Your task to perform on an android device: open device folders in google photos Image 0: 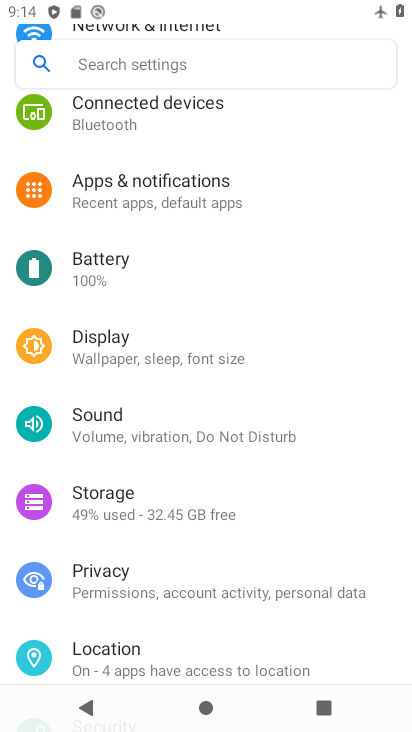
Step 0: press home button
Your task to perform on an android device: open device folders in google photos Image 1: 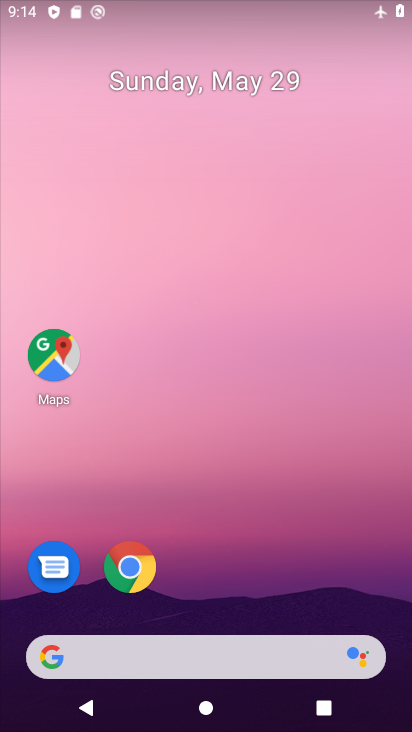
Step 1: drag from (396, 611) to (250, 73)
Your task to perform on an android device: open device folders in google photos Image 2: 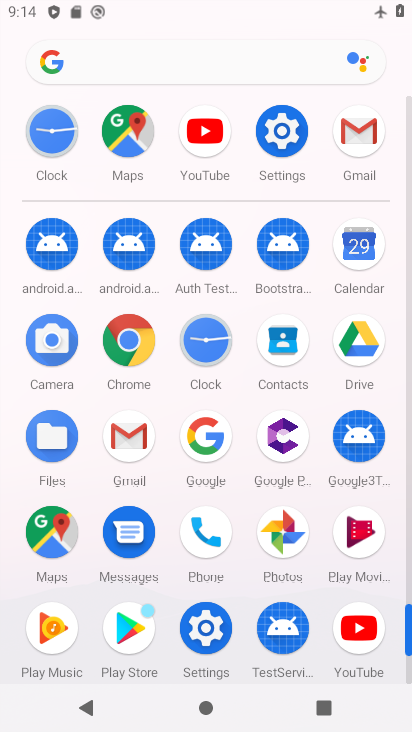
Step 2: click (281, 533)
Your task to perform on an android device: open device folders in google photos Image 3: 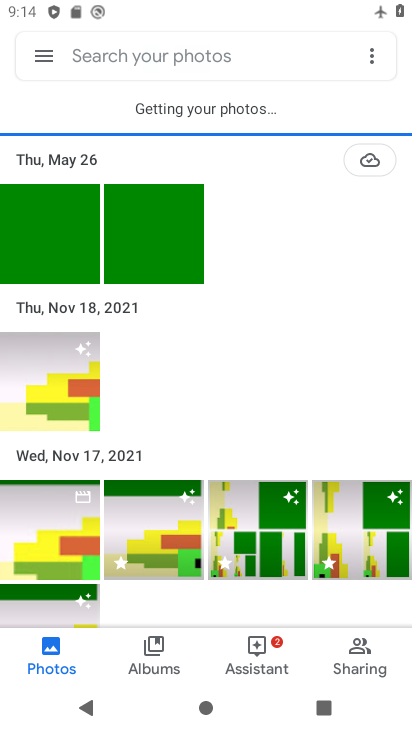
Step 3: click (50, 53)
Your task to perform on an android device: open device folders in google photos Image 4: 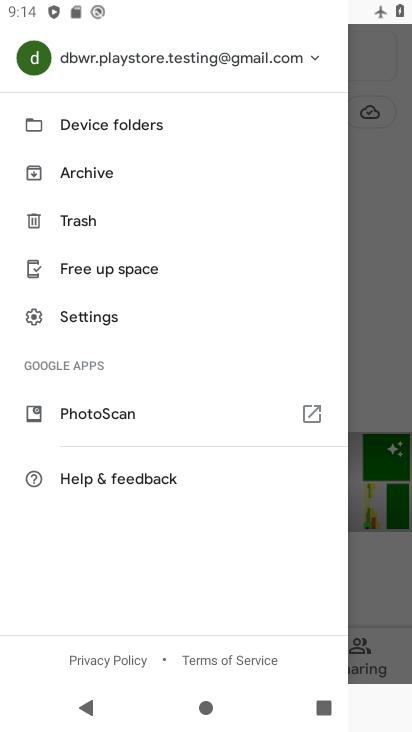
Step 4: click (100, 131)
Your task to perform on an android device: open device folders in google photos Image 5: 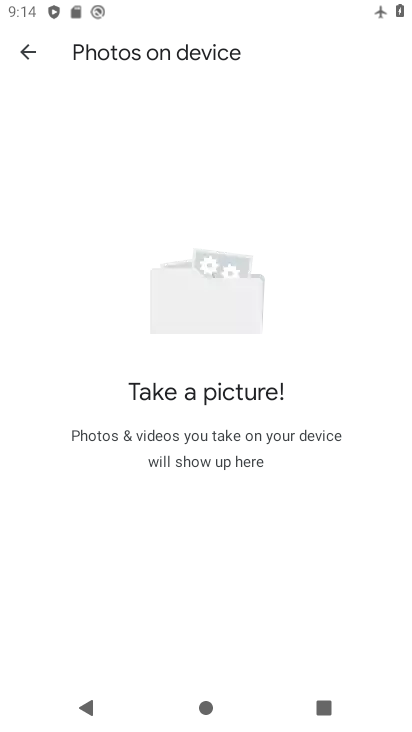
Step 5: task complete